Your task to perform on an android device: Go to eBay Image 0: 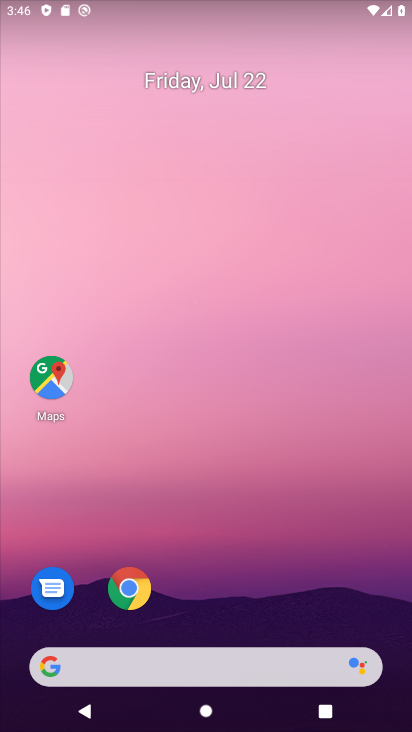
Step 0: click (255, 63)
Your task to perform on an android device: Go to eBay Image 1: 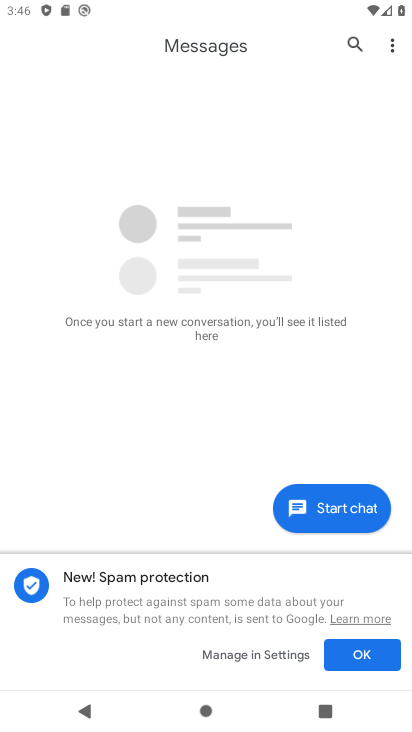
Step 1: press home button
Your task to perform on an android device: Go to eBay Image 2: 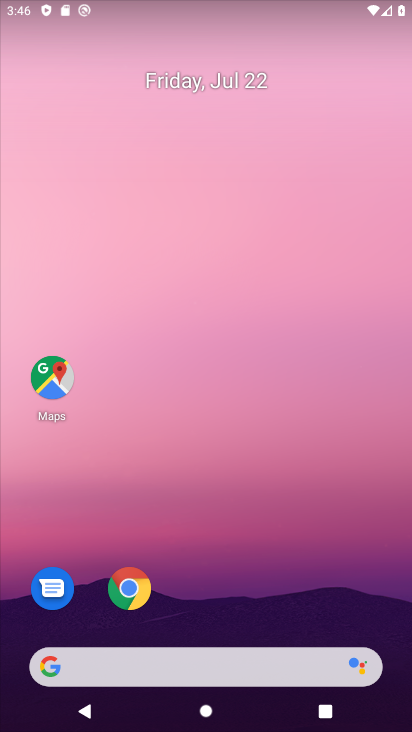
Step 2: click (143, 594)
Your task to perform on an android device: Go to eBay Image 3: 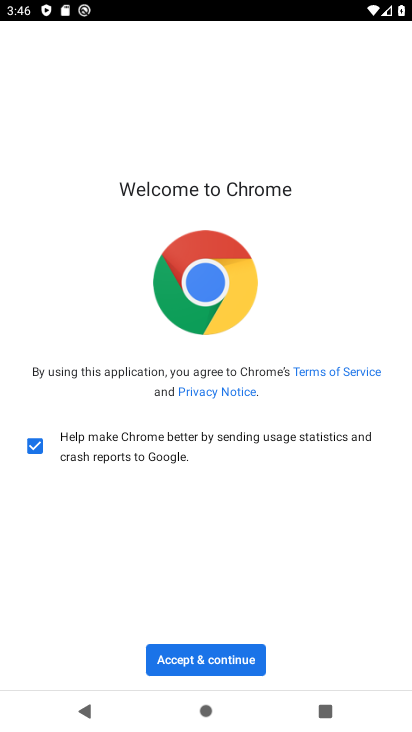
Step 3: click (210, 657)
Your task to perform on an android device: Go to eBay Image 4: 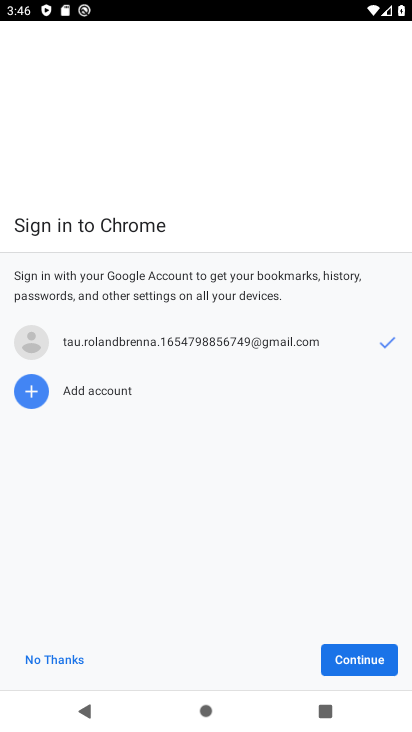
Step 4: click (345, 667)
Your task to perform on an android device: Go to eBay Image 5: 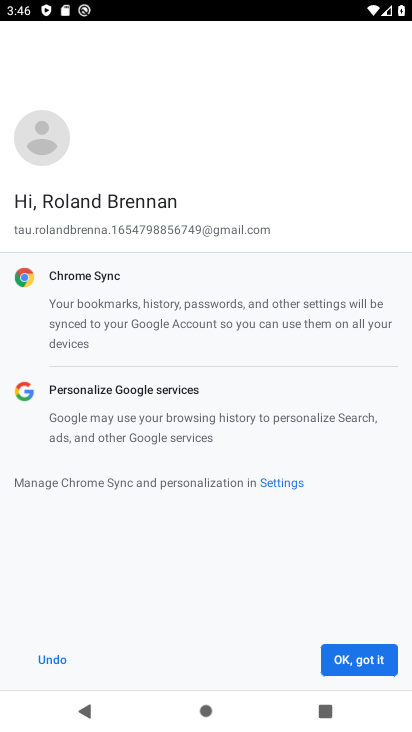
Step 5: click (345, 667)
Your task to perform on an android device: Go to eBay Image 6: 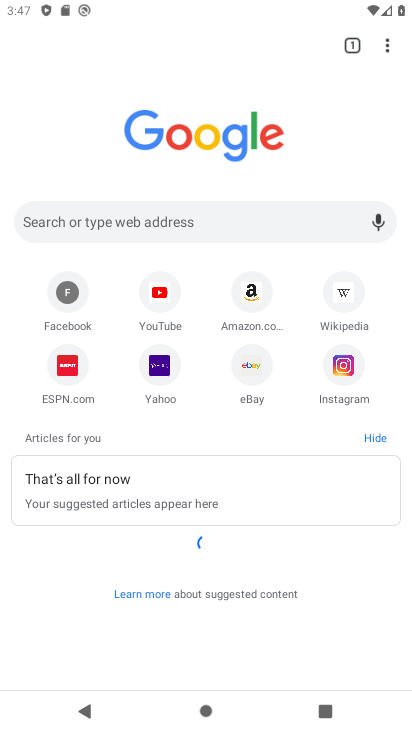
Step 6: click (252, 393)
Your task to perform on an android device: Go to eBay Image 7: 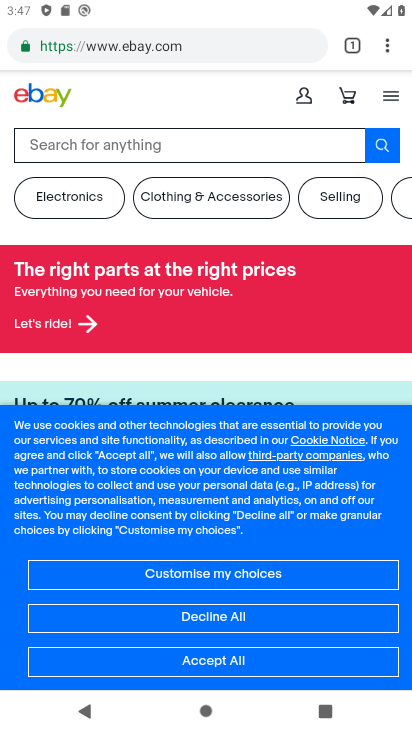
Step 7: task complete